Your task to perform on an android device: Do I have any events today? Image 0: 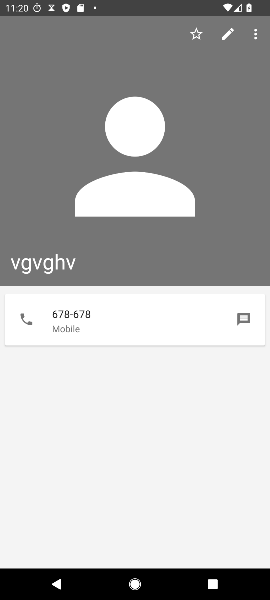
Step 0: press home button
Your task to perform on an android device: Do I have any events today? Image 1: 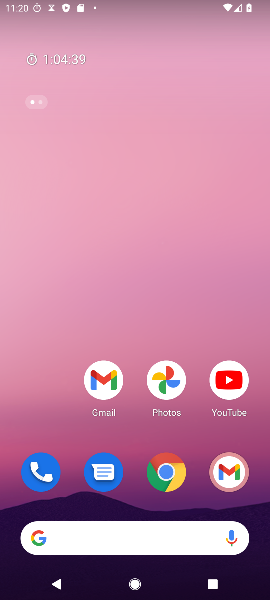
Step 1: drag from (198, 458) to (128, 0)
Your task to perform on an android device: Do I have any events today? Image 2: 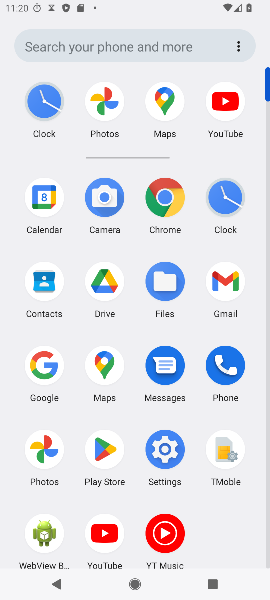
Step 2: click (43, 201)
Your task to perform on an android device: Do I have any events today? Image 3: 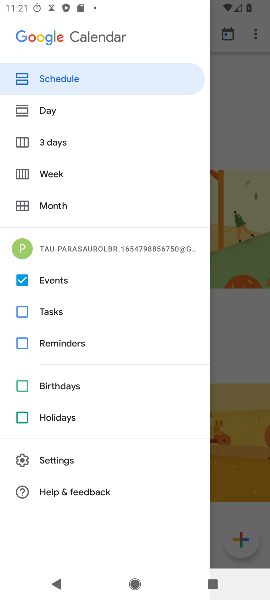
Step 3: click (56, 122)
Your task to perform on an android device: Do I have any events today? Image 4: 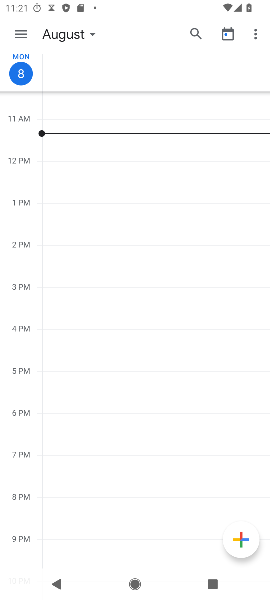
Step 4: task complete